Your task to perform on an android device: toggle location history Image 0: 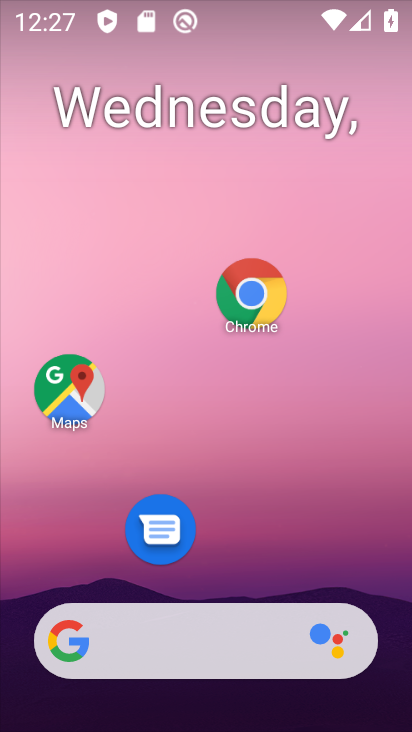
Step 0: drag from (233, 560) to (246, 406)
Your task to perform on an android device: toggle location history Image 1: 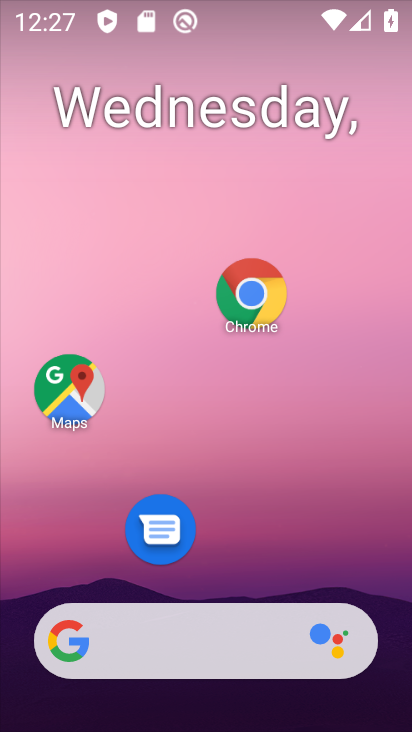
Step 1: drag from (246, 592) to (263, 227)
Your task to perform on an android device: toggle location history Image 2: 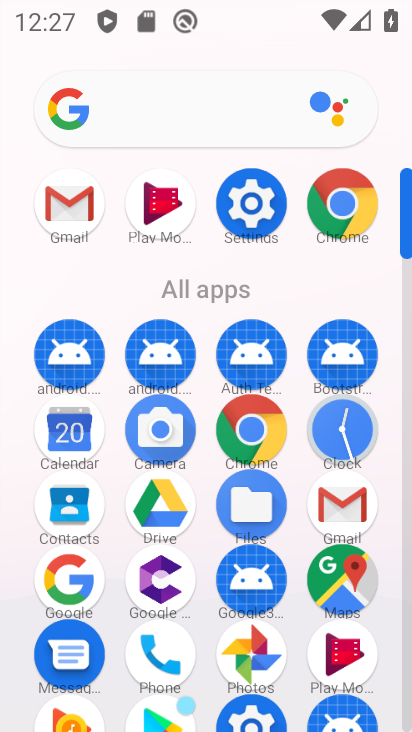
Step 2: click (238, 214)
Your task to perform on an android device: toggle location history Image 3: 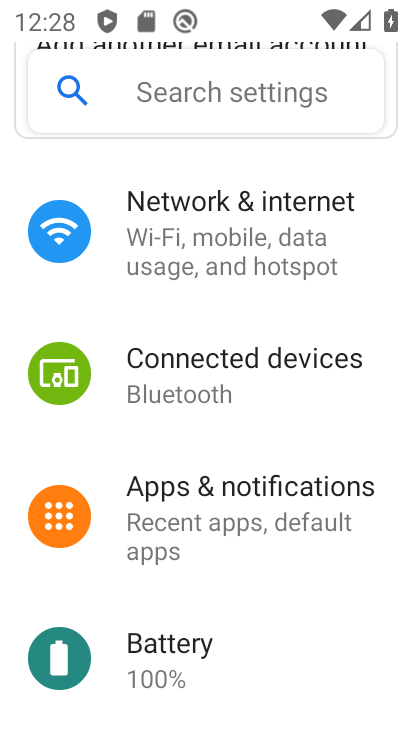
Step 3: drag from (261, 549) to (340, 178)
Your task to perform on an android device: toggle location history Image 4: 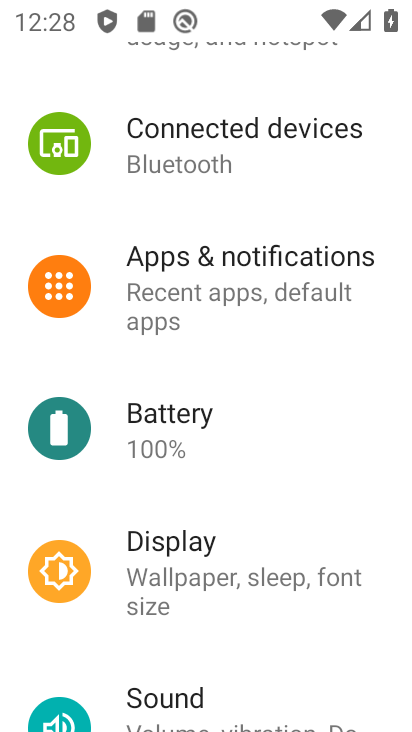
Step 4: drag from (178, 517) to (155, 364)
Your task to perform on an android device: toggle location history Image 5: 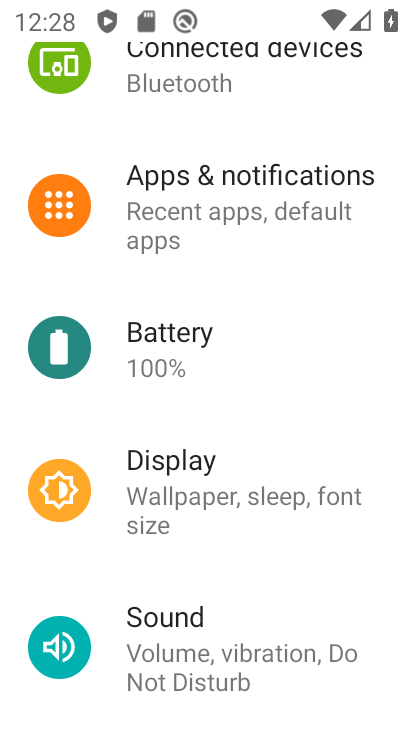
Step 5: drag from (159, 516) to (198, 182)
Your task to perform on an android device: toggle location history Image 6: 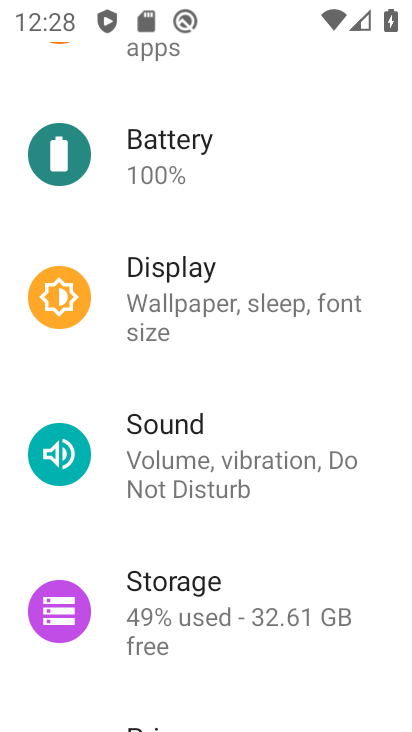
Step 6: drag from (198, 470) to (341, 91)
Your task to perform on an android device: toggle location history Image 7: 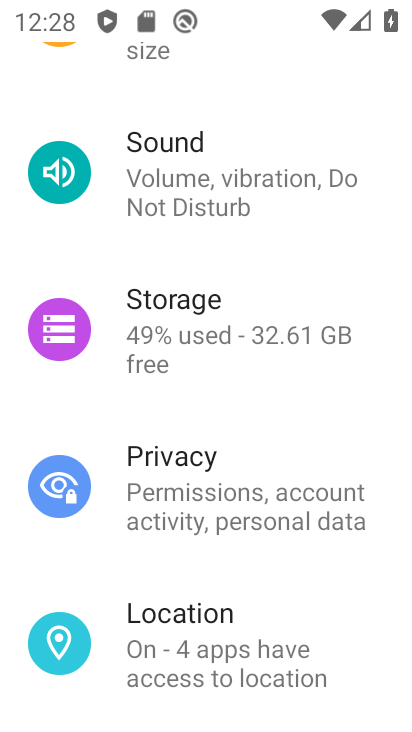
Step 7: click (199, 672)
Your task to perform on an android device: toggle location history Image 8: 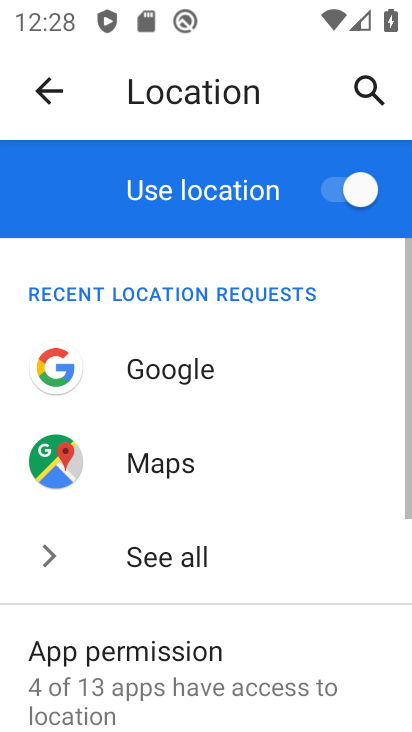
Step 8: drag from (165, 513) to (165, 477)
Your task to perform on an android device: toggle location history Image 9: 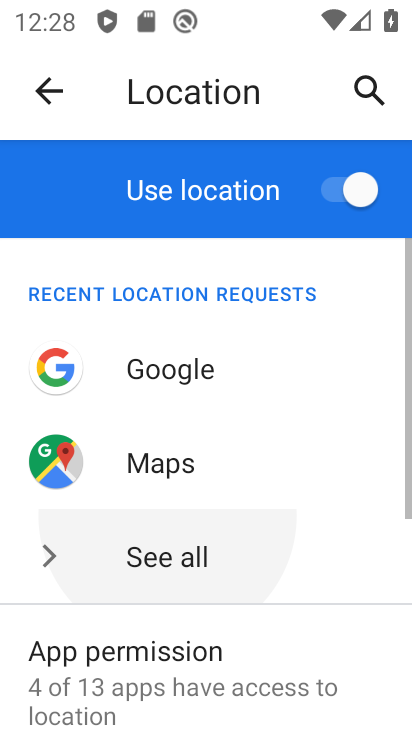
Step 9: click (167, 275)
Your task to perform on an android device: toggle location history Image 10: 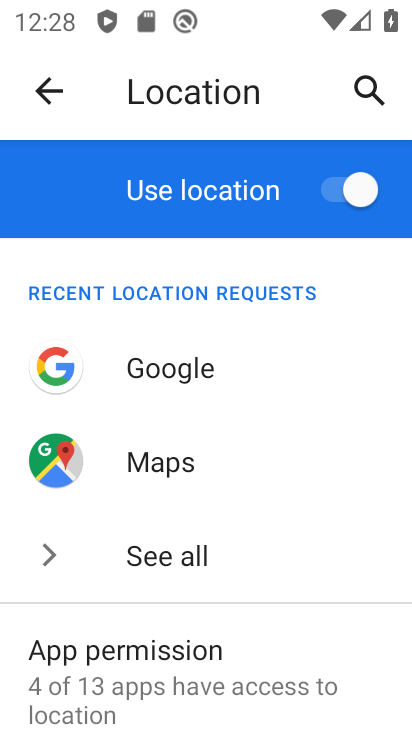
Step 10: drag from (202, 636) to (300, 211)
Your task to perform on an android device: toggle location history Image 11: 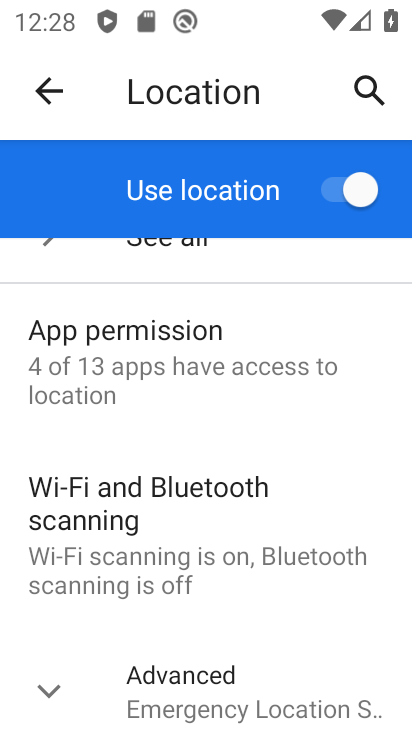
Step 11: drag from (203, 552) to (294, 352)
Your task to perform on an android device: toggle location history Image 12: 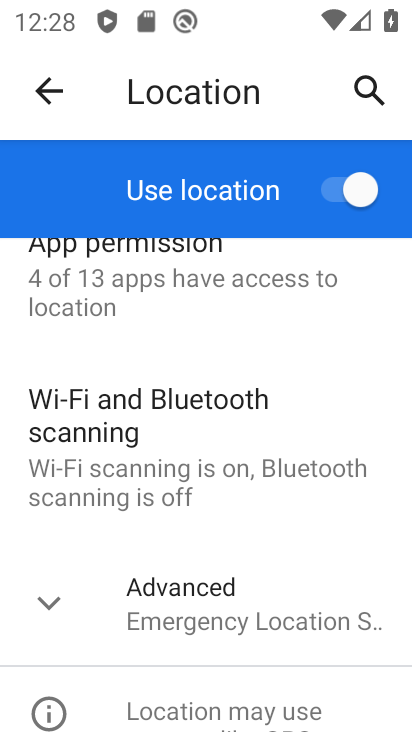
Step 12: click (163, 616)
Your task to perform on an android device: toggle location history Image 13: 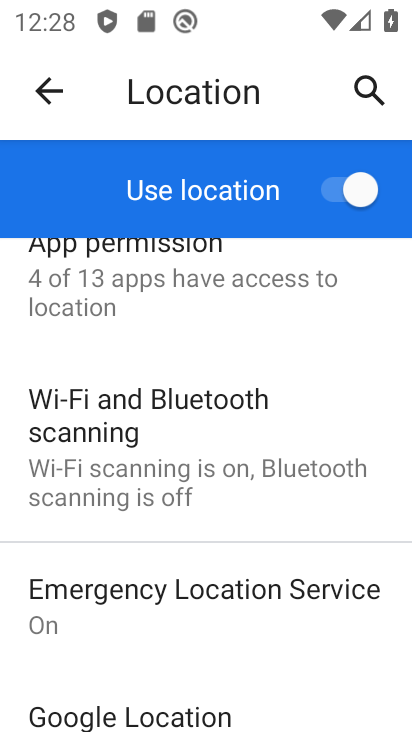
Step 13: drag from (198, 355) to (227, 272)
Your task to perform on an android device: toggle location history Image 14: 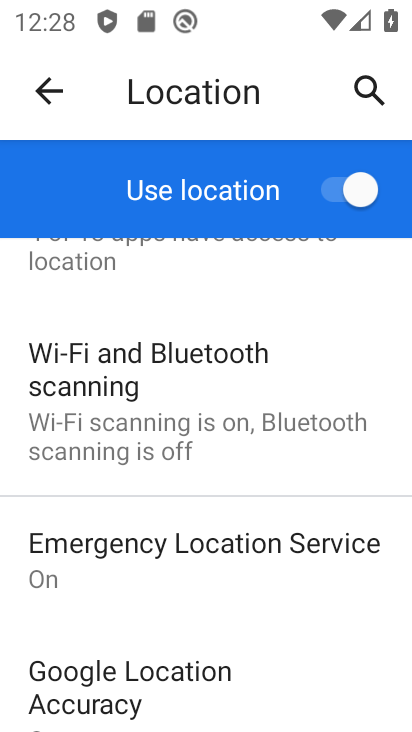
Step 14: drag from (269, 331) to (319, 256)
Your task to perform on an android device: toggle location history Image 15: 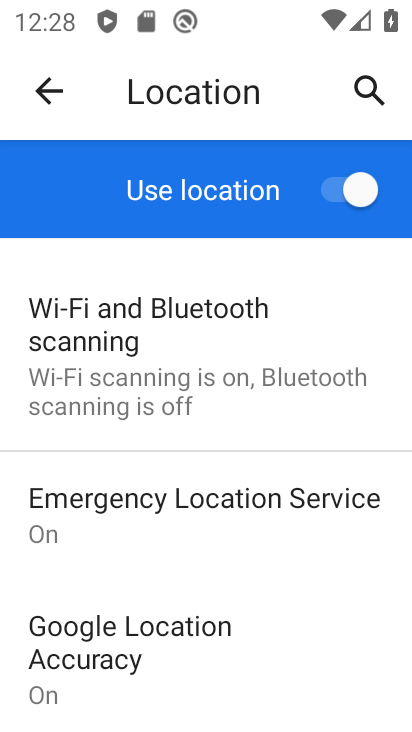
Step 15: drag from (228, 501) to (262, 222)
Your task to perform on an android device: toggle location history Image 16: 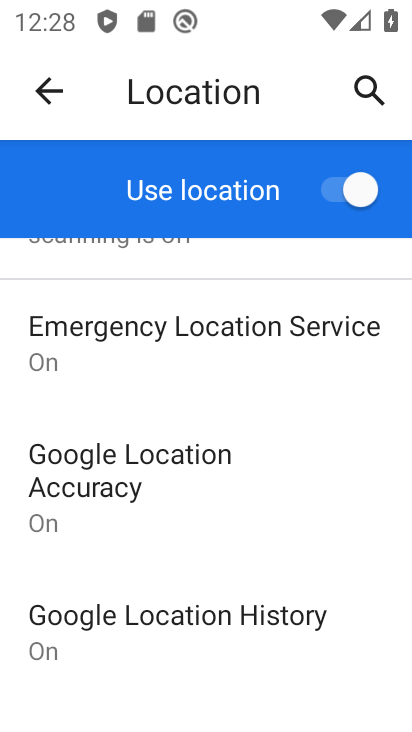
Step 16: click (245, 636)
Your task to perform on an android device: toggle location history Image 17: 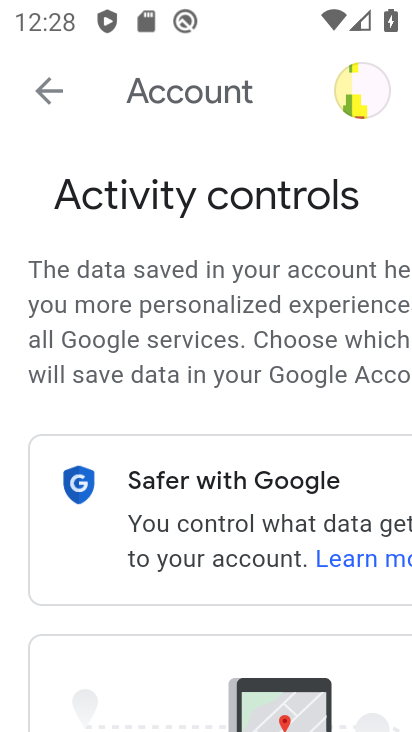
Step 17: click (120, 408)
Your task to perform on an android device: toggle location history Image 18: 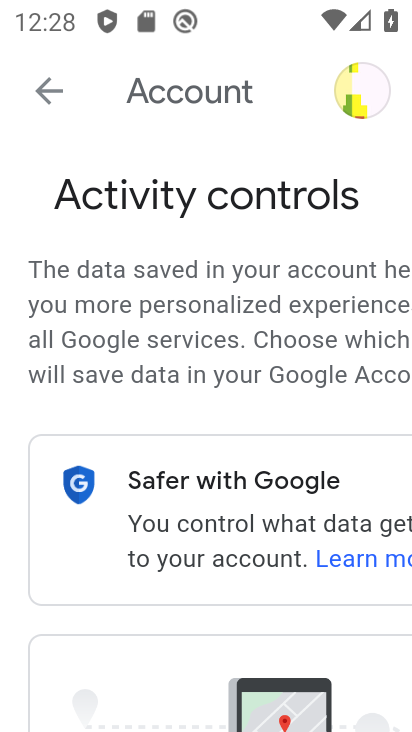
Step 18: drag from (367, 661) to (200, 457)
Your task to perform on an android device: toggle location history Image 19: 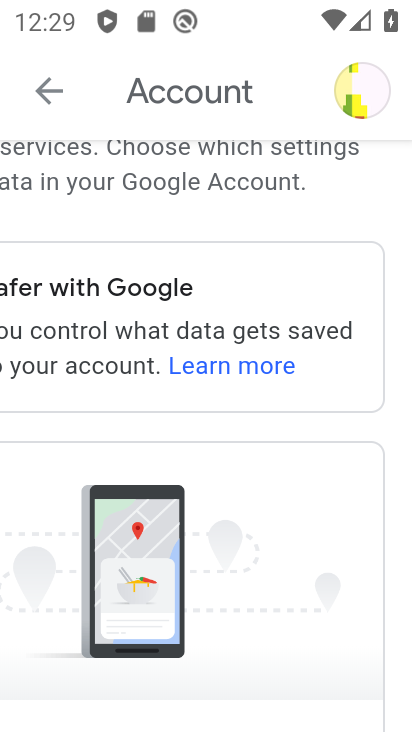
Step 19: drag from (300, 570) to (249, 371)
Your task to perform on an android device: toggle location history Image 20: 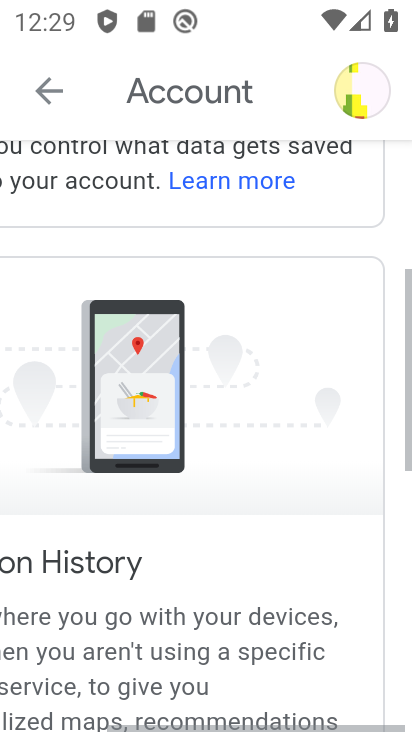
Step 20: click (187, 130)
Your task to perform on an android device: toggle location history Image 21: 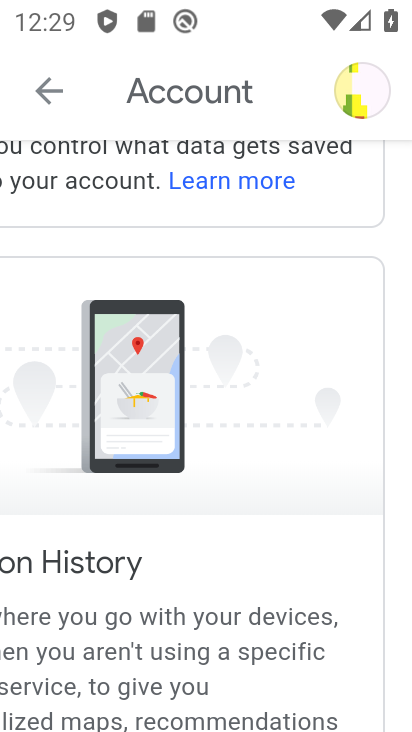
Step 21: drag from (252, 570) to (108, 330)
Your task to perform on an android device: toggle location history Image 22: 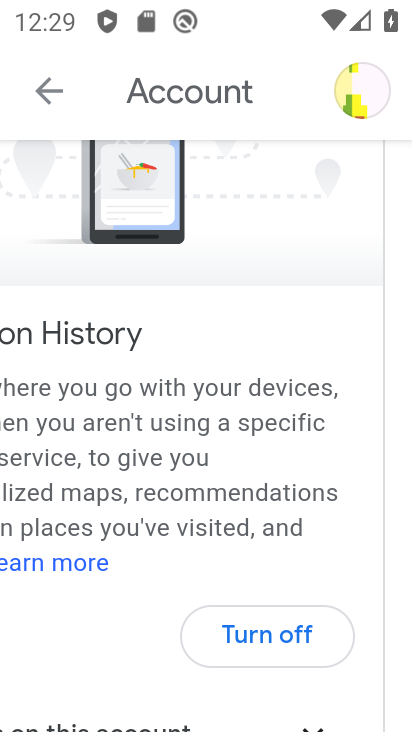
Step 22: click (294, 631)
Your task to perform on an android device: toggle location history Image 23: 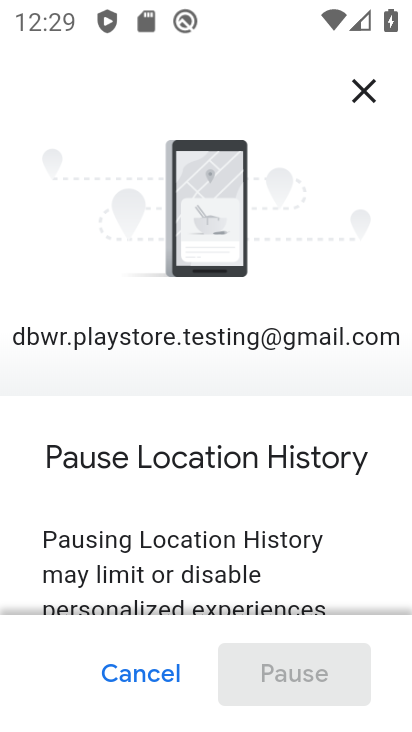
Step 23: drag from (191, 403) to (224, 161)
Your task to perform on an android device: toggle location history Image 24: 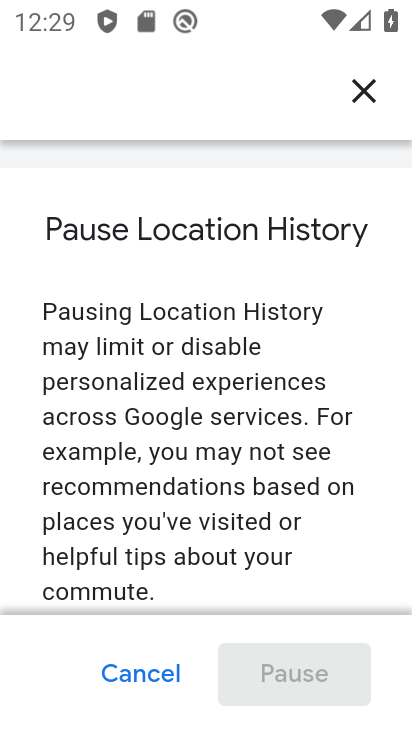
Step 24: click (262, 299)
Your task to perform on an android device: toggle location history Image 25: 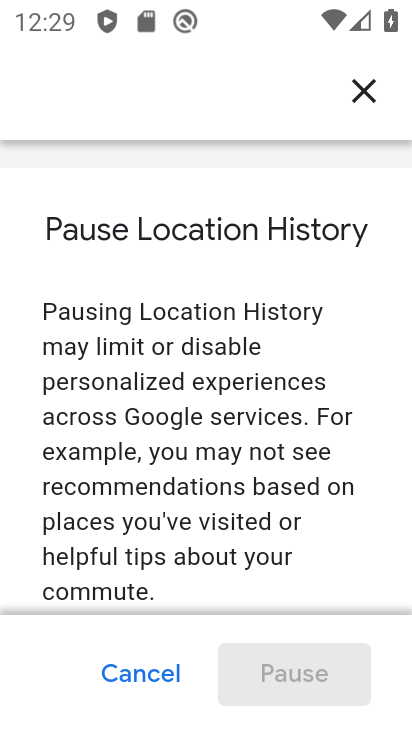
Step 25: click (262, 114)
Your task to perform on an android device: toggle location history Image 26: 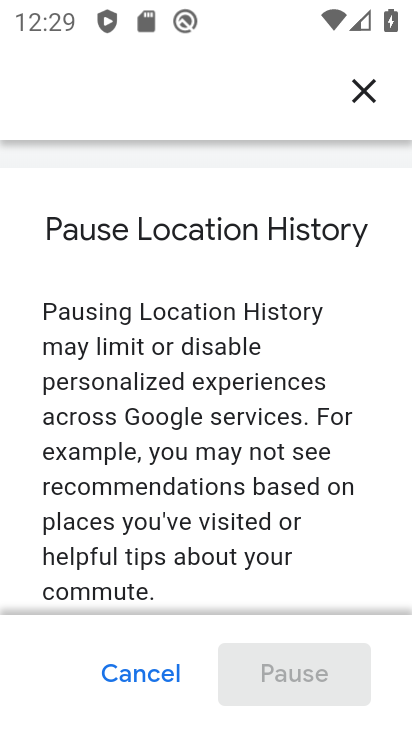
Step 26: drag from (268, 440) to (251, 388)
Your task to perform on an android device: toggle location history Image 27: 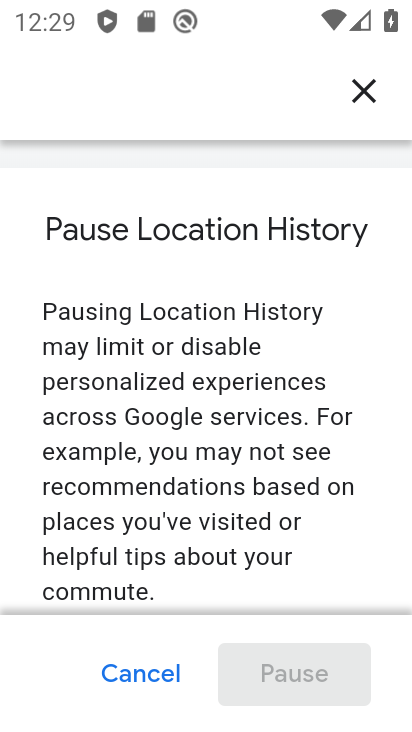
Step 27: drag from (217, 285) to (206, 241)
Your task to perform on an android device: toggle location history Image 28: 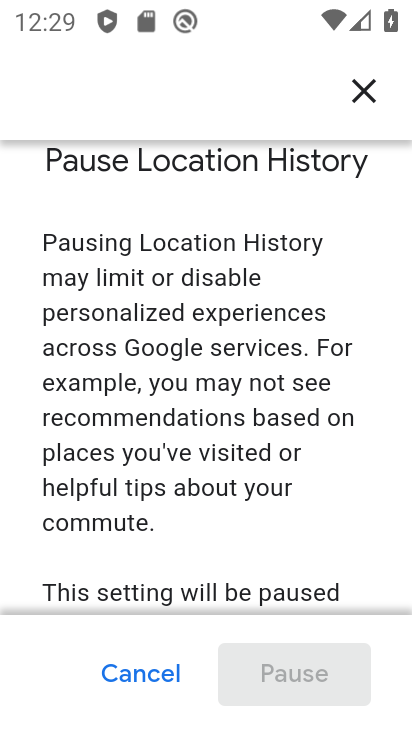
Step 28: drag from (285, 522) to (219, 220)
Your task to perform on an android device: toggle location history Image 29: 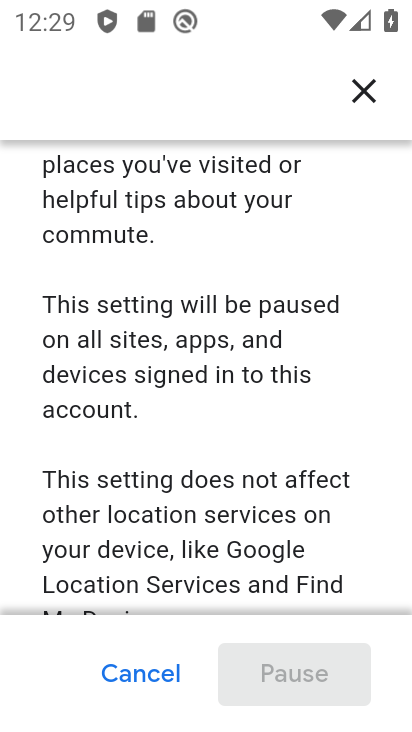
Step 29: drag from (260, 433) to (206, 252)
Your task to perform on an android device: toggle location history Image 30: 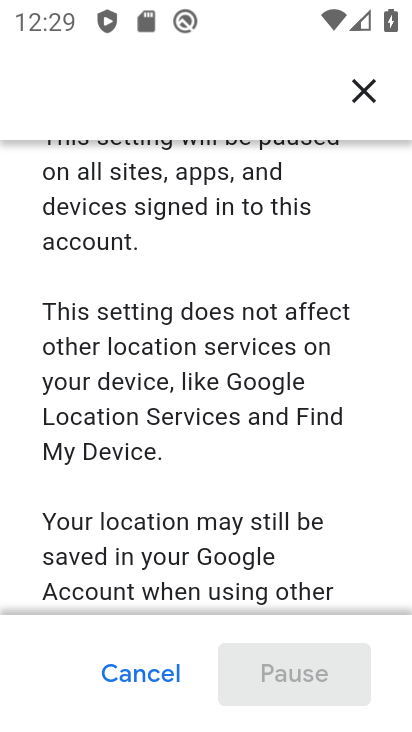
Step 30: drag from (275, 471) to (191, 254)
Your task to perform on an android device: toggle location history Image 31: 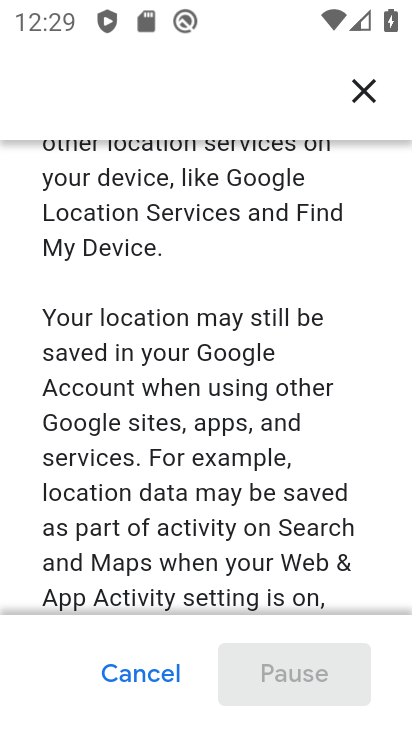
Step 31: drag from (305, 450) to (217, 257)
Your task to perform on an android device: toggle location history Image 32: 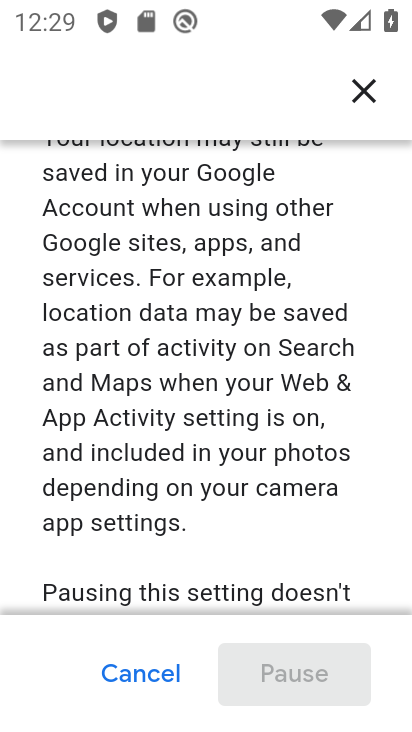
Step 32: drag from (279, 517) to (236, 215)
Your task to perform on an android device: toggle location history Image 33: 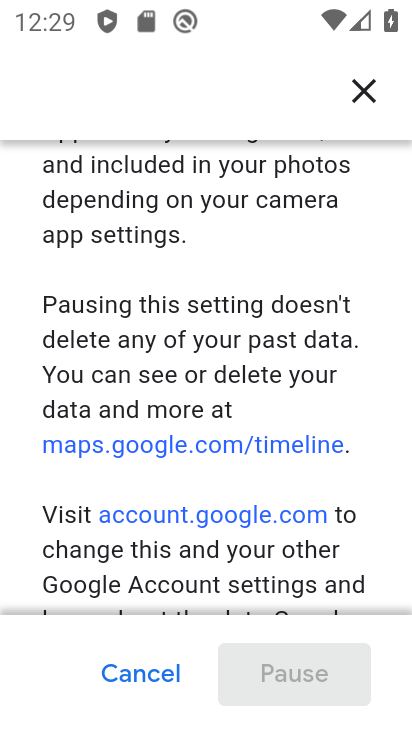
Step 33: drag from (313, 510) to (228, 214)
Your task to perform on an android device: toggle location history Image 34: 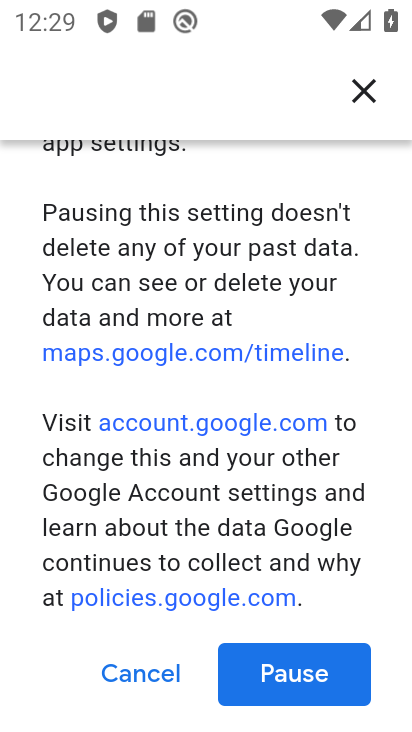
Step 34: click (306, 671)
Your task to perform on an android device: toggle location history Image 35: 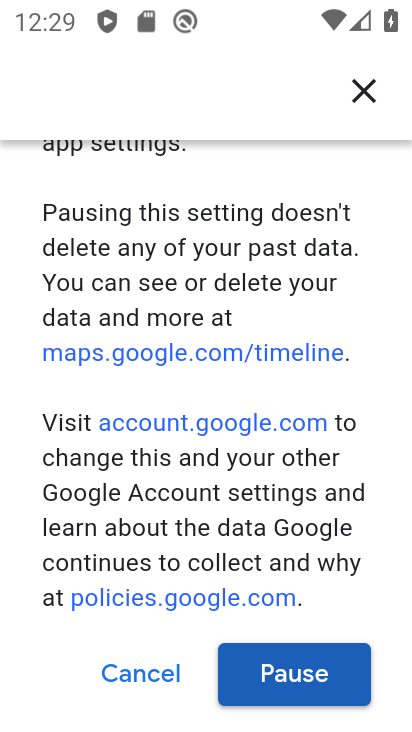
Step 35: click (292, 671)
Your task to perform on an android device: toggle location history Image 36: 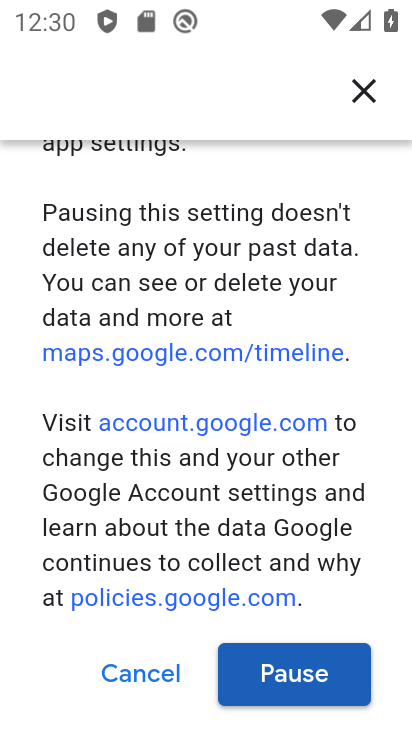
Step 36: click (304, 680)
Your task to perform on an android device: toggle location history Image 37: 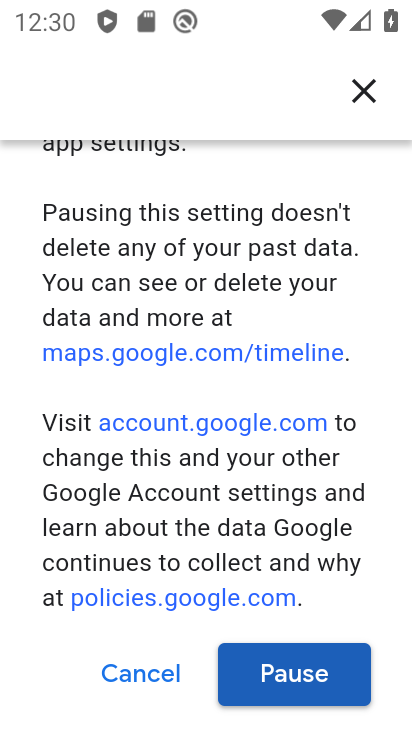
Step 37: click (304, 680)
Your task to perform on an android device: toggle location history Image 38: 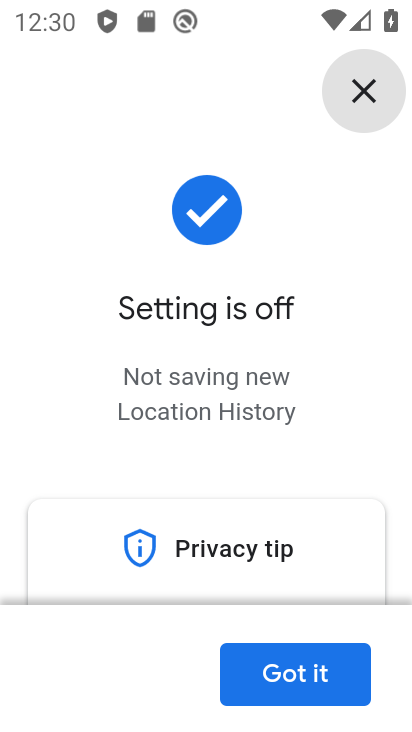
Step 38: click (307, 682)
Your task to perform on an android device: toggle location history Image 39: 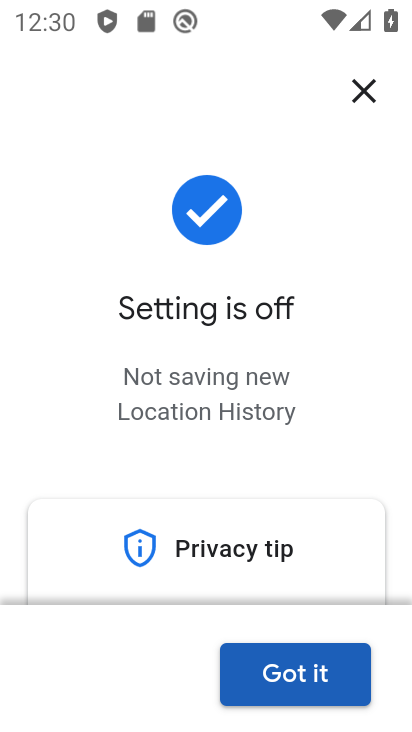
Step 39: click (314, 685)
Your task to perform on an android device: toggle location history Image 40: 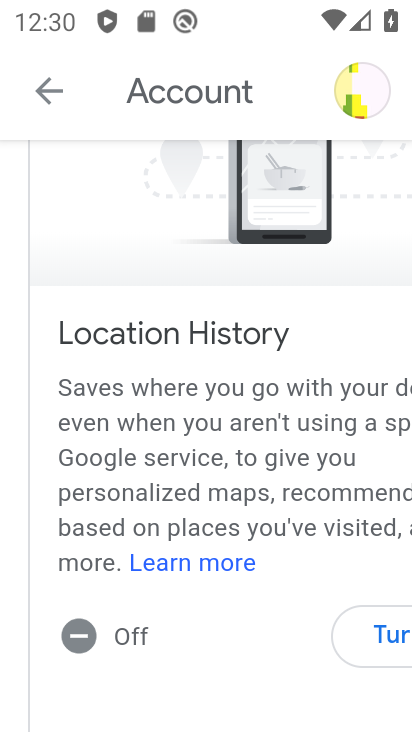
Step 40: task complete